Your task to perform on an android device: Go to wifi settings Image 0: 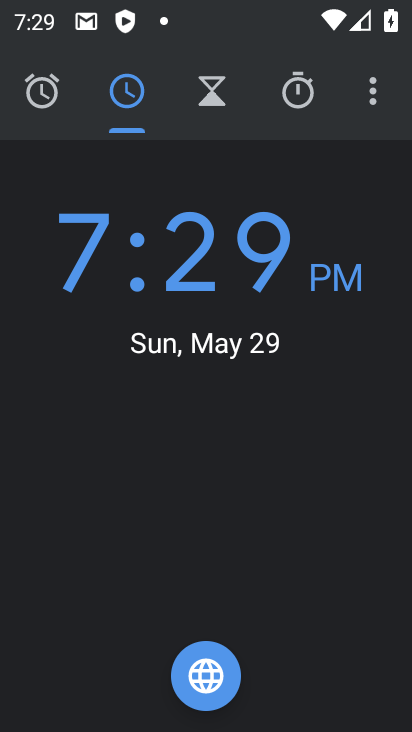
Step 0: press home button
Your task to perform on an android device: Go to wifi settings Image 1: 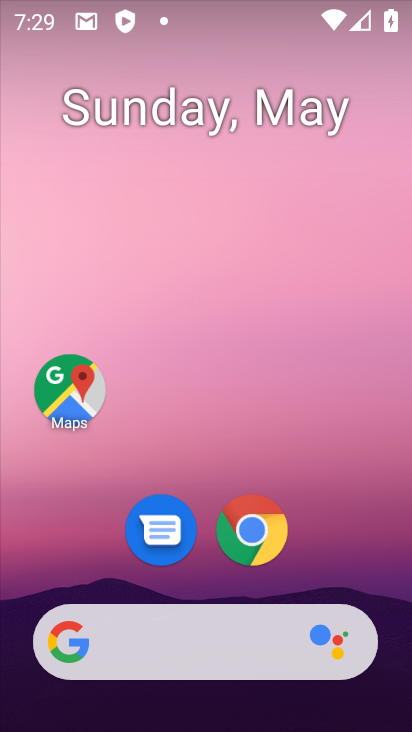
Step 1: drag from (191, 546) to (206, 51)
Your task to perform on an android device: Go to wifi settings Image 2: 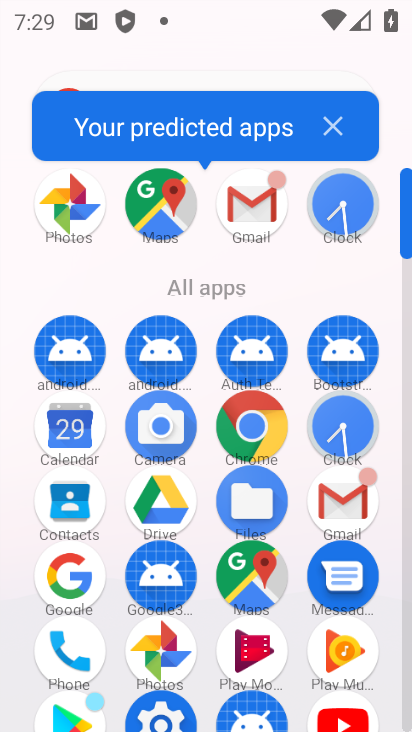
Step 2: click (149, 706)
Your task to perform on an android device: Go to wifi settings Image 3: 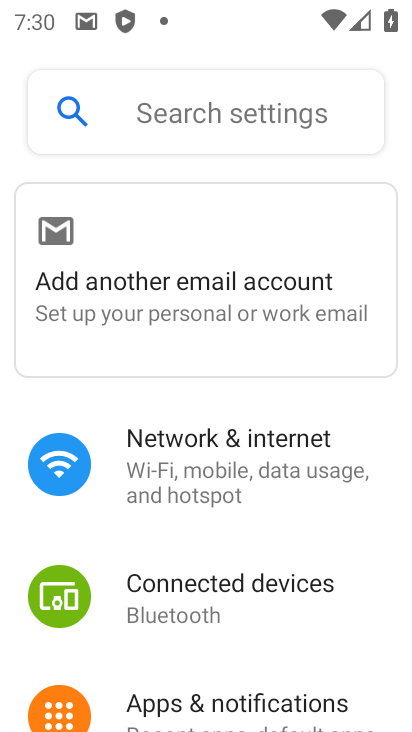
Step 3: click (140, 441)
Your task to perform on an android device: Go to wifi settings Image 4: 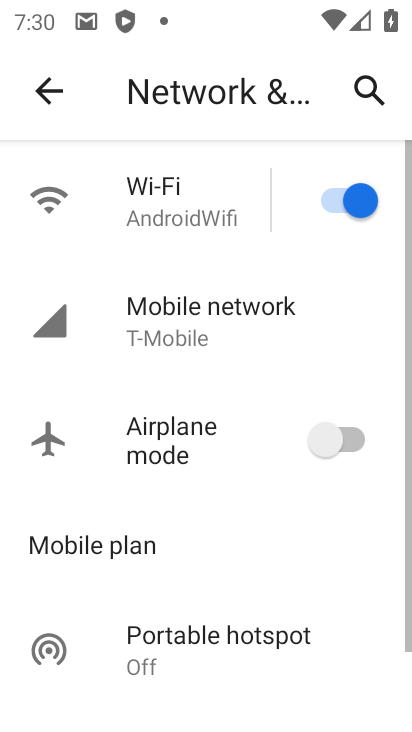
Step 4: click (178, 225)
Your task to perform on an android device: Go to wifi settings Image 5: 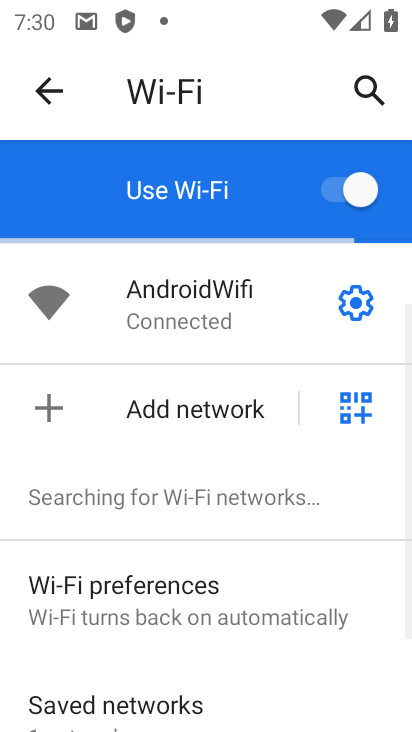
Step 5: task complete